Your task to perform on an android device: Go to battery settings Image 0: 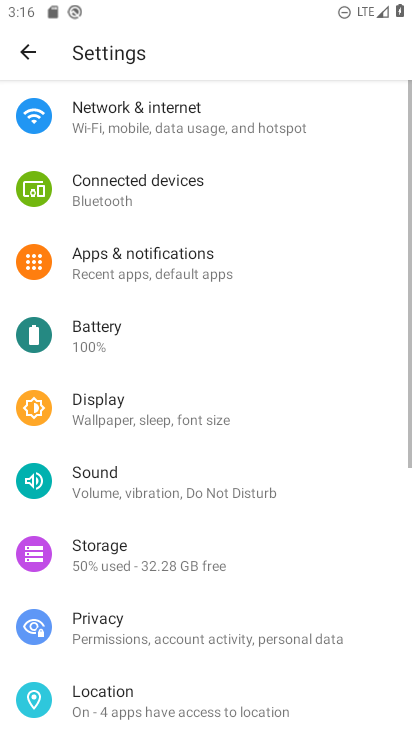
Step 0: click (137, 339)
Your task to perform on an android device: Go to battery settings Image 1: 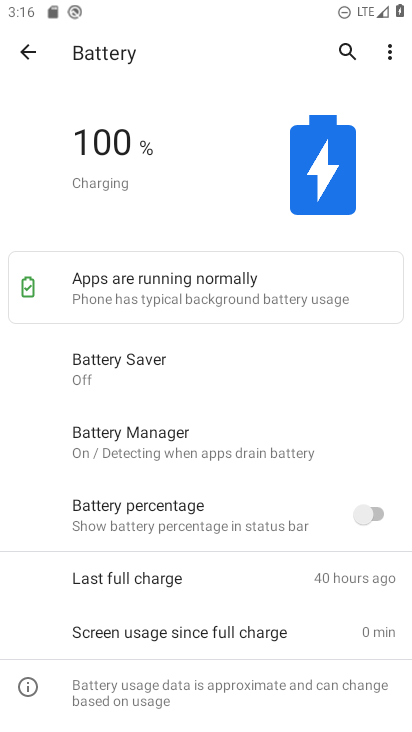
Step 1: task complete